Your task to perform on an android device: move an email to a new category in the gmail app Image 0: 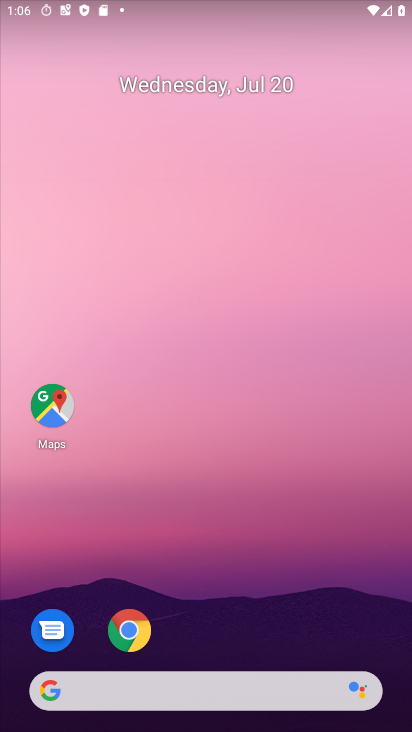
Step 0: drag from (233, 587) to (180, 30)
Your task to perform on an android device: move an email to a new category in the gmail app Image 1: 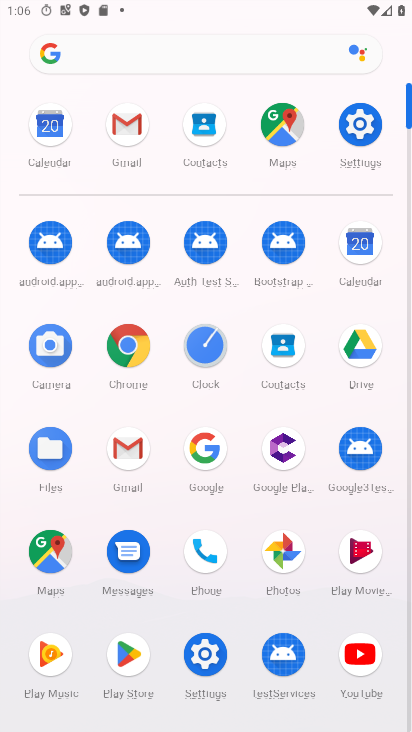
Step 1: click (133, 137)
Your task to perform on an android device: move an email to a new category in the gmail app Image 2: 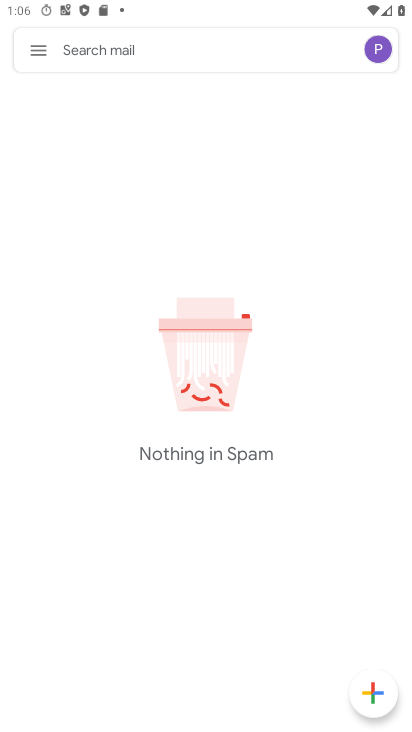
Step 2: click (38, 46)
Your task to perform on an android device: move an email to a new category in the gmail app Image 3: 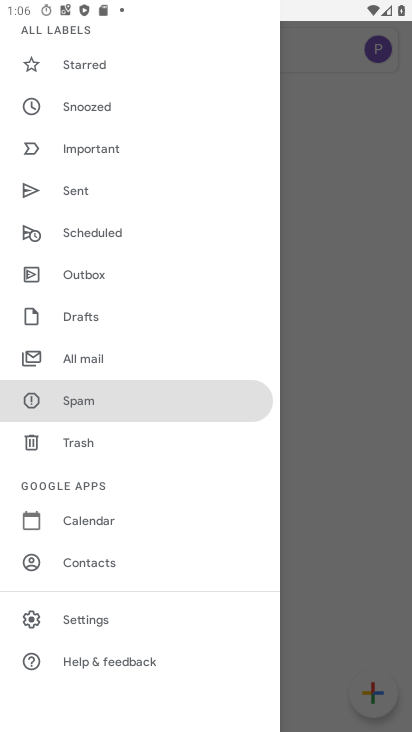
Step 3: click (86, 362)
Your task to perform on an android device: move an email to a new category in the gmail app Image 4: 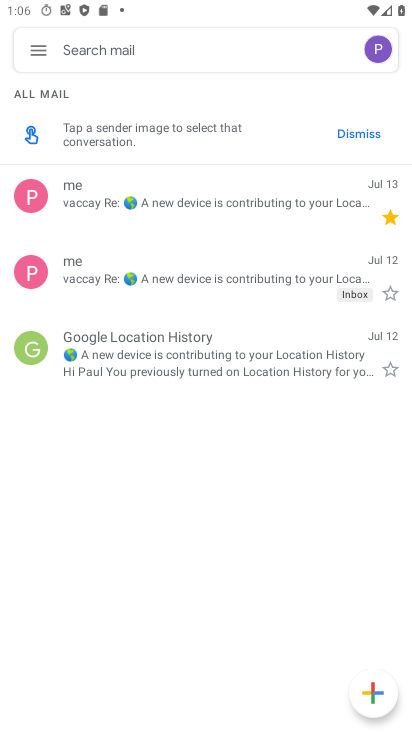
Step 4: click (154, 193)
Your task to perform on an android device: move an email to a new category in the gmail app Image 5: 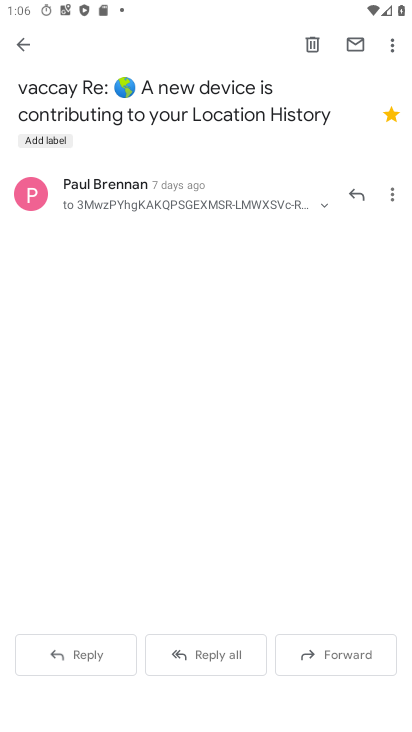
Step 5: click (394, 46)
Your task to perform on an android device: move an email to a new category in the gmail app Image 6: 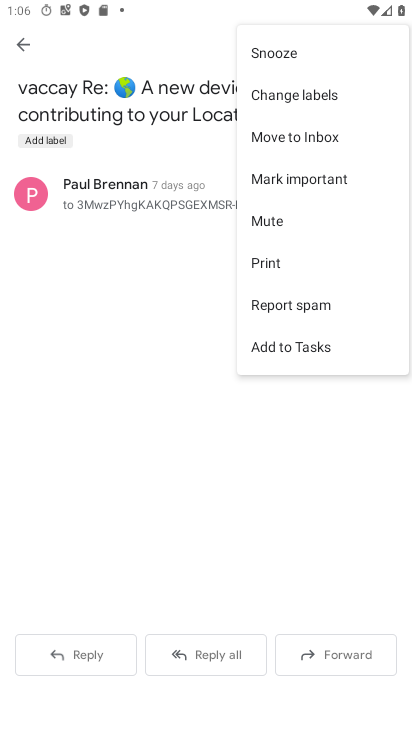
Step 6: click (281, 179)
Your task to perform on an android device: move an email to a new category in the gmail app Image 7: 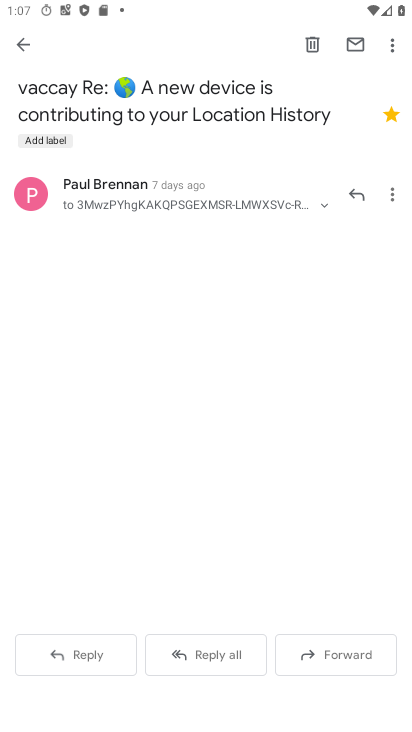
Step 7: task complete